Your task to perform on an android device: turn smart compose on in the gmail app Image 0: 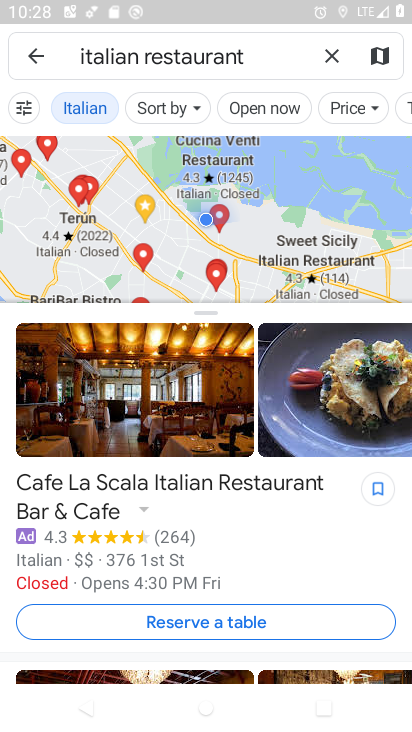
Step 0: press home button
Your task to perform on an android device: turn smart compose on in the gmail app Image 1: 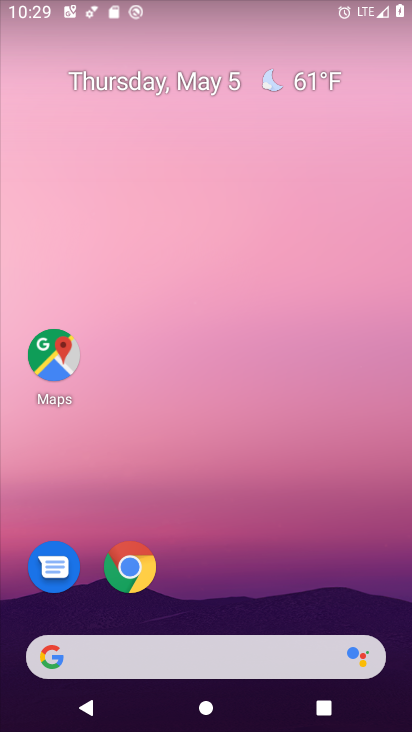
Step 1: drag from (278, 587) to (269, 199)
Your task to perform on an android device: turn smart compose on in the gmail app Image 2: 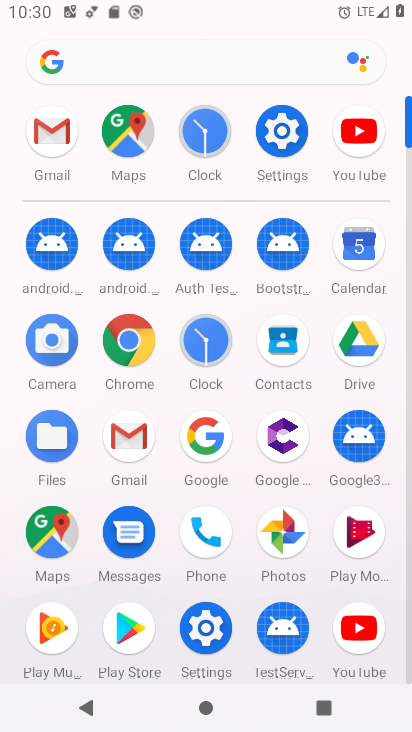
Step 2: click (54, 127)
Your task to perform on an android device: turn smart compose on in the gmail app Image 3: 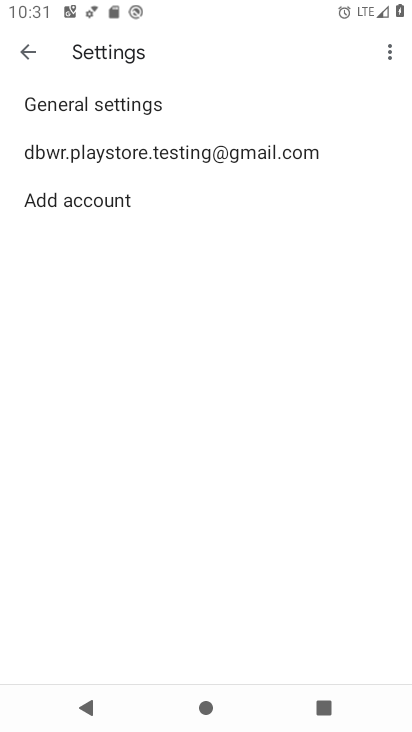
Step 3: click (122, 149)
Your task to perform on an android device: turn smart compose on in the gmail app Image 4: 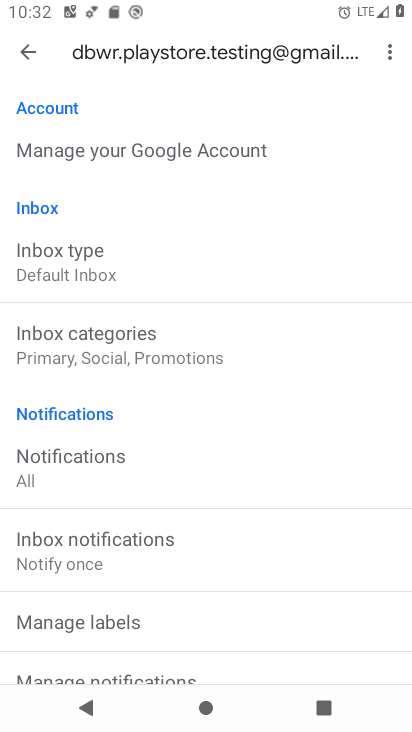
Step 4: task complete